Your task to perform on an android device: turn on javascript in the chrome app Image 0: 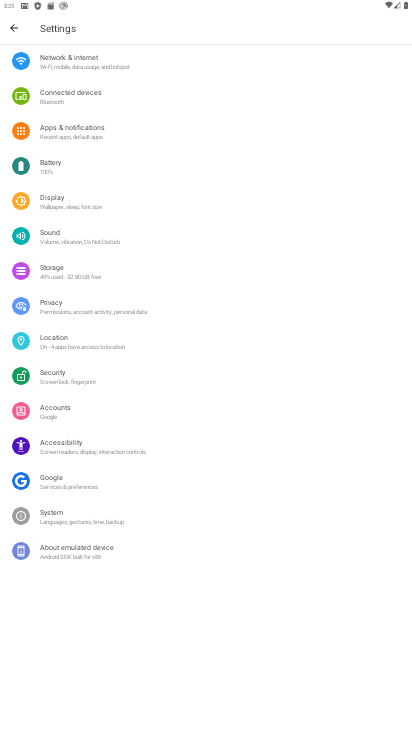
Step 0: press home button
Your task to perform on an android device: turn on javascript in the chrome app Image 1: 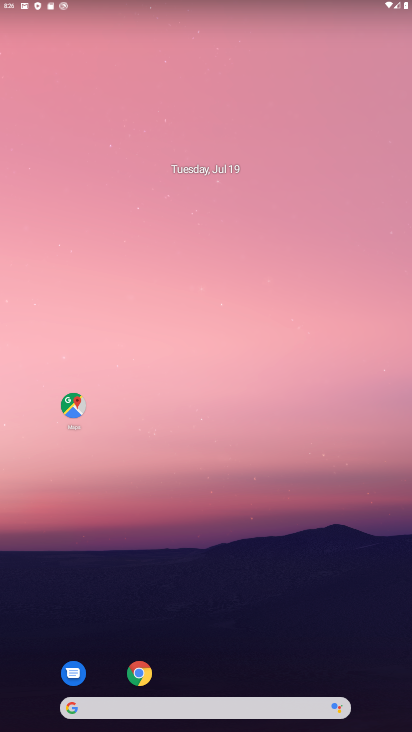
Step 1: click (141, 669)
Your task to perform on an android device: turn on javascript in the chrome app Image 2: 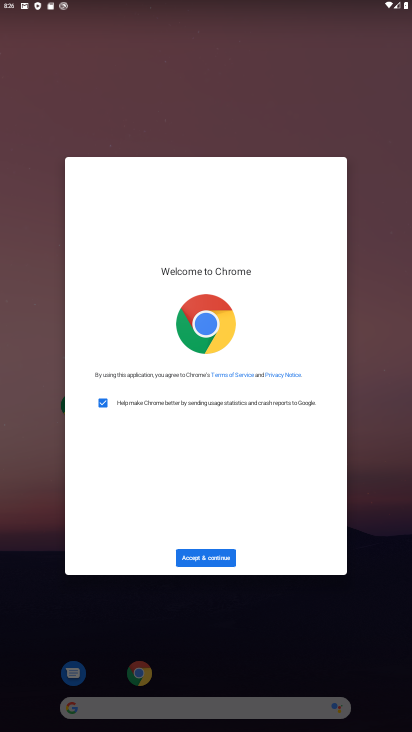
Step 2: click (213, 556)
Your task to perform on an android device: turn on javascript in the chrome app Image 3: 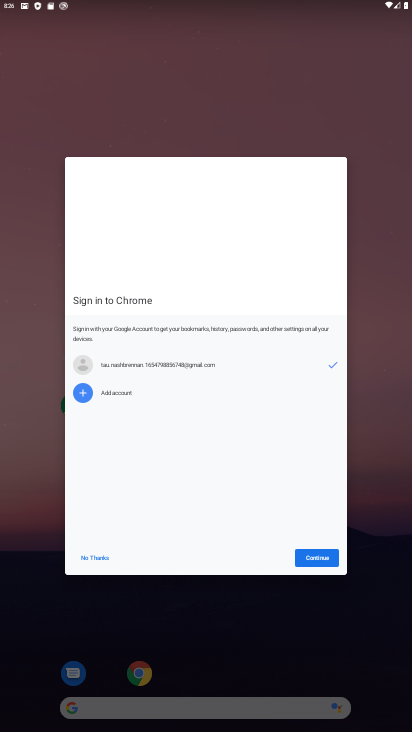
Step 3: click (323, 559)
Your task to perform on an android device: turn on javascript in the chrome app Image 4: 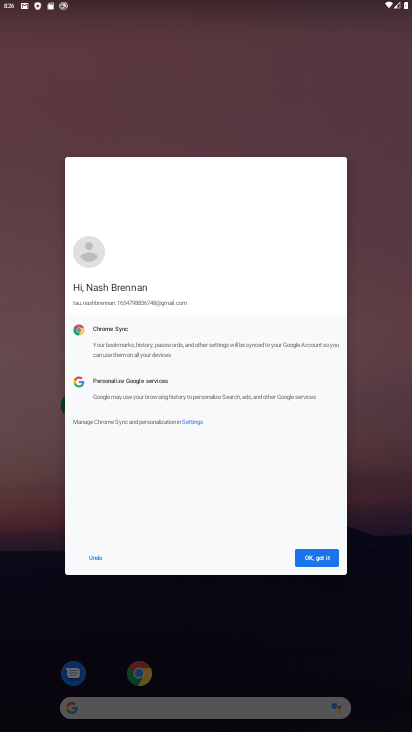
Step 4: click (315, 541)
Your task to perform on an android device: turn on javascript in the chrome app Image 5: 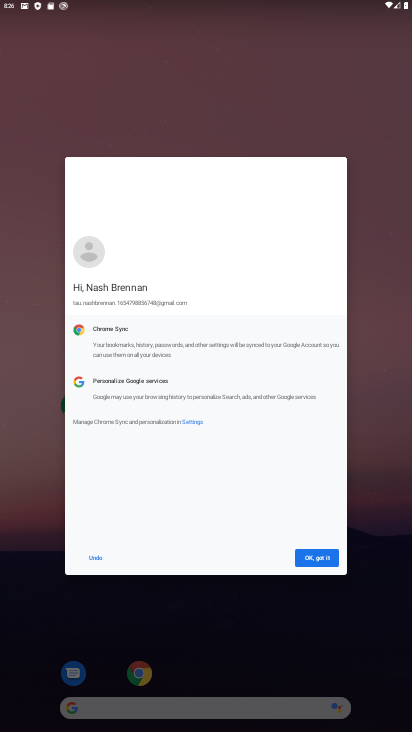
Step 5: click (322, 558)
Your task to perform on an android device: turn on javascript in the chrome app Image 6: 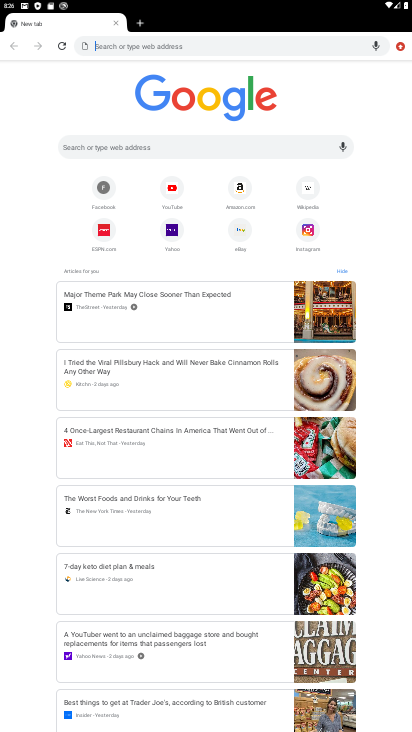
Step 6: click (404, 49)
Your task to perform on an android device: turn on javascript in the chrome app Image 7: 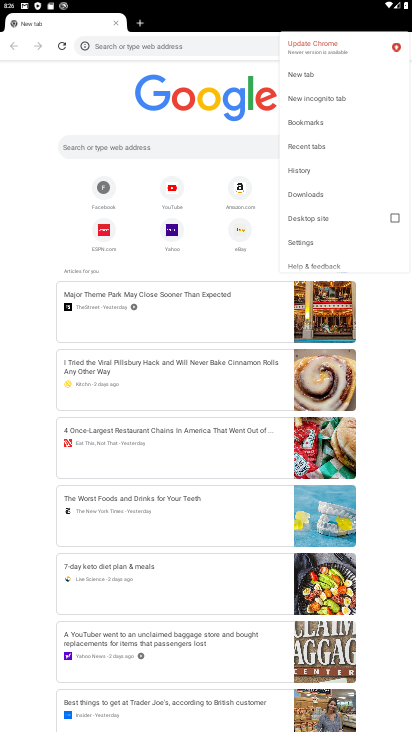
Step 7: click (308, 240)
Your task to perform on an android device: turn on javascript in the chrome app Image 8: 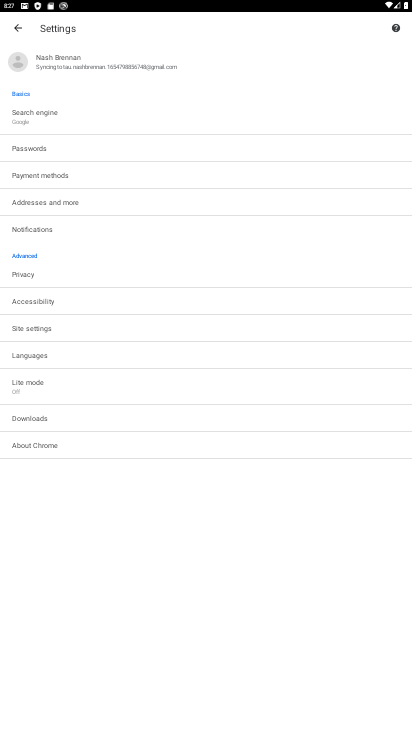
Step 8: click (33, 326)
Your task to perform on an android device: turn on javascript in the chrome app Image 9: 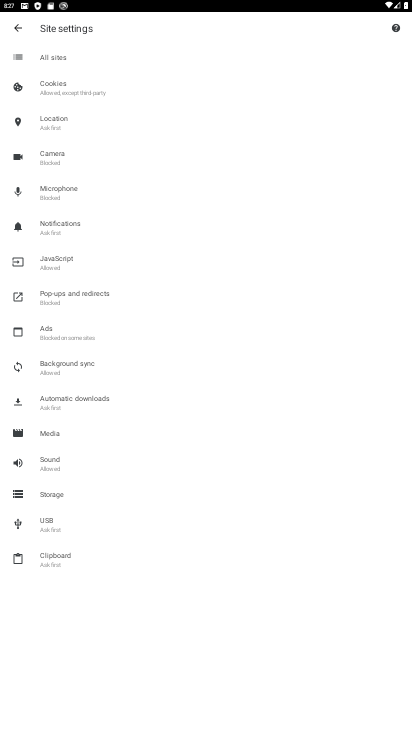
Step 9: click (63, 266)
Your task to perform on an android device: turn on javascript in the chrome app Image 10: 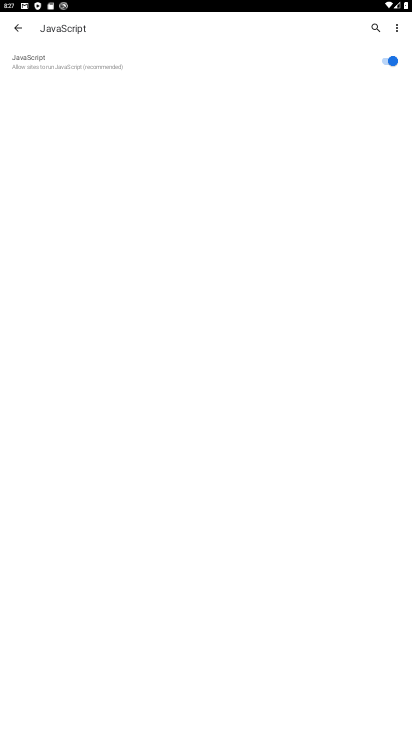
Step 10: task complete